Your task to perform on an android device: open a bookmark in the chrome app Image 0: 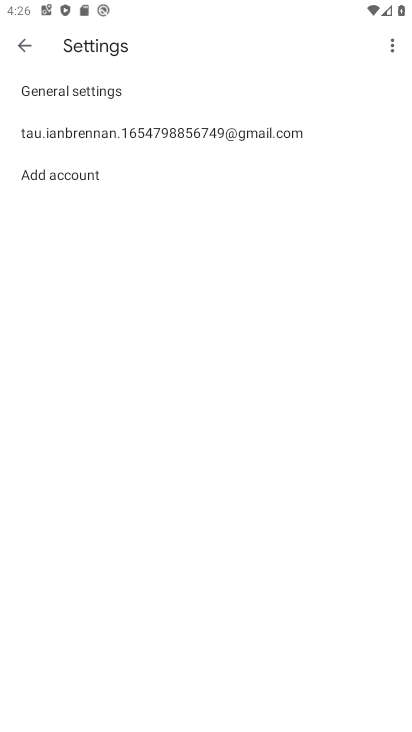
Step 0: press home button
Your task to perform on an android device: open a bookmark in the chrome app Image 1: 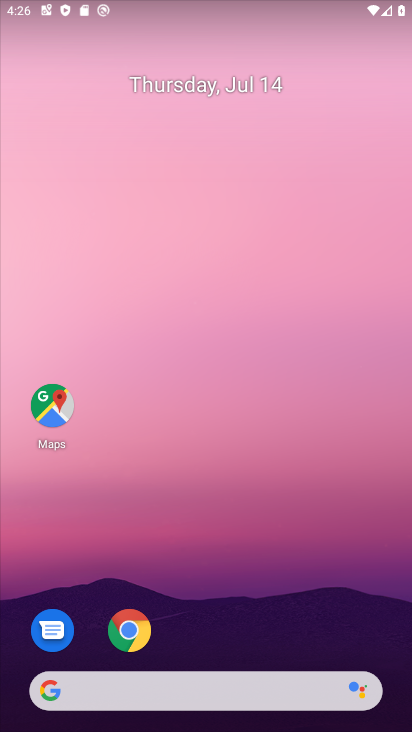
Step 1: drag from (204, 706) to (396, 74)
Your task to perform on an android device: open a bookmark in the chrome app Image 2: 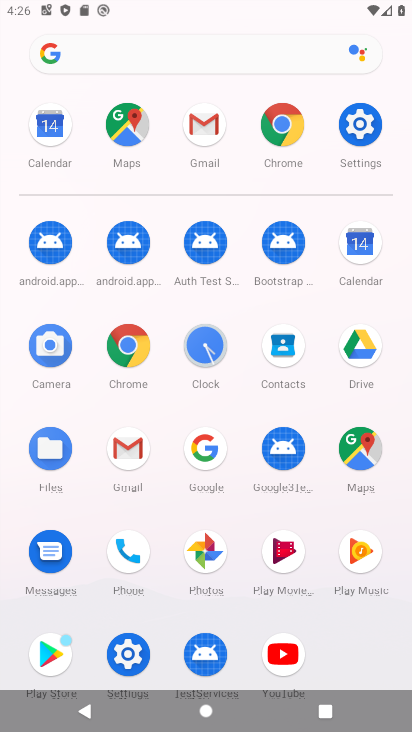
Step 2: click (126, 334)
Your task to perform on an android device: open a bookmark in the chrome app Image 3: 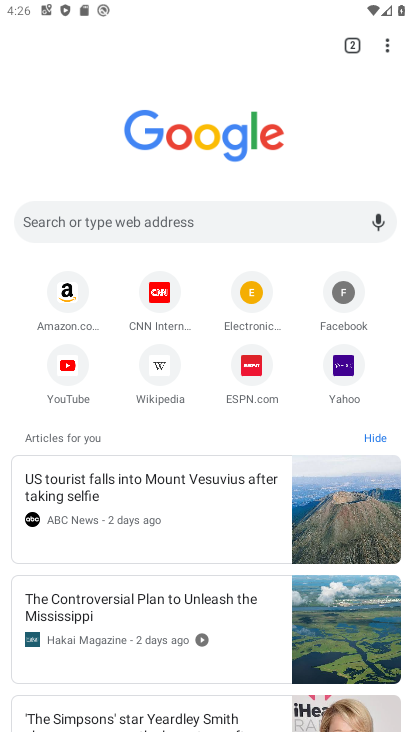
Step 3: click (384, 44)
Your task to perform on an android device: open a bookmark in the chrome app Image 4: 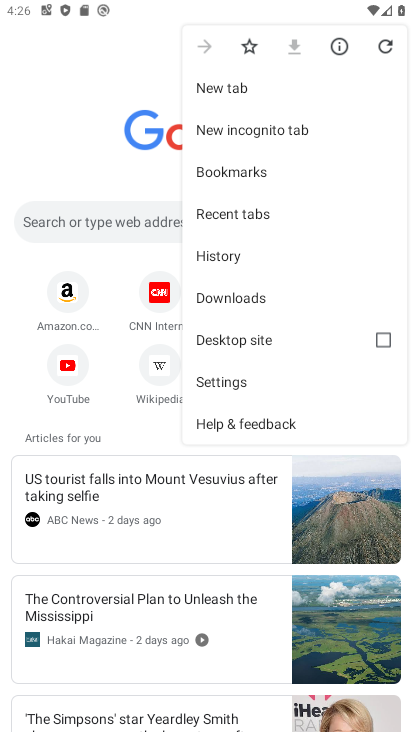
Step 4: click (260, 168)
Your task to perform on an android device: open a bookmark in the chrome app Image 5: 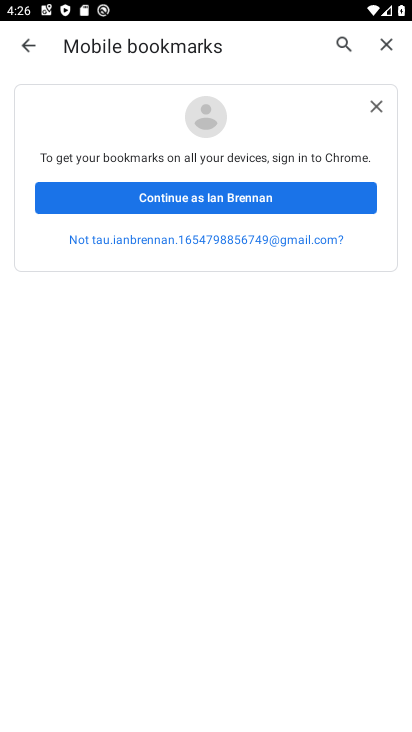
Step 5: task complete